Your task to perform on an android device: add a contact Image 0: 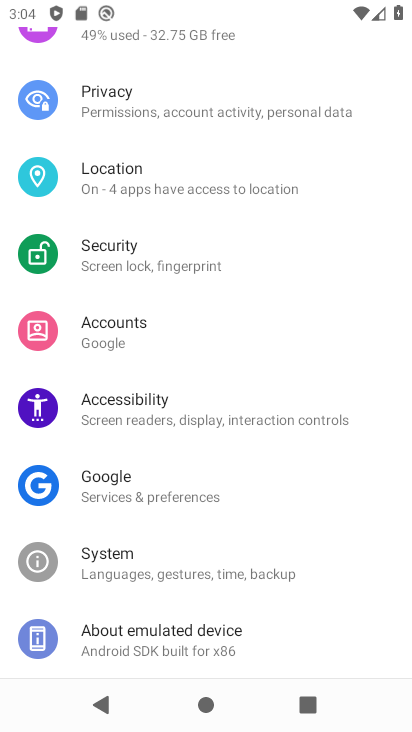
Step 0: drag from (209, 570) to (322, 150)
Your task to perform on an android device: add a contact Image 1: 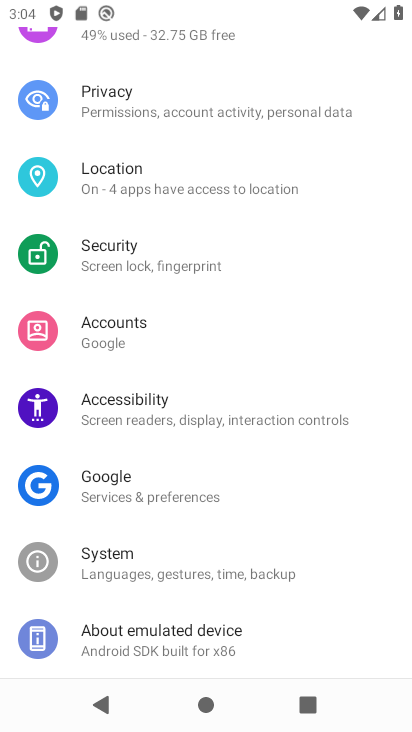
Step 1: press home button
Your task to perform on an android device: add a contact Image 2: 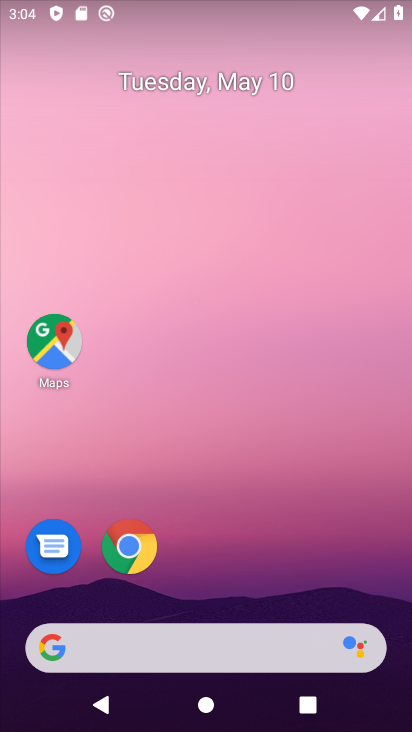
Step 2: drag from (248, 539) to (351, 7)
Your task to perform on an android device: add a contact Image 3: 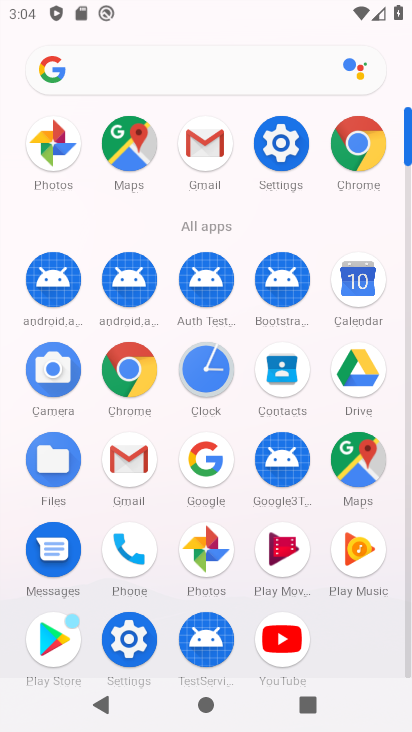
Step 3: click (281, 389)
Your task to perform on an android device: add a contact Image 4: 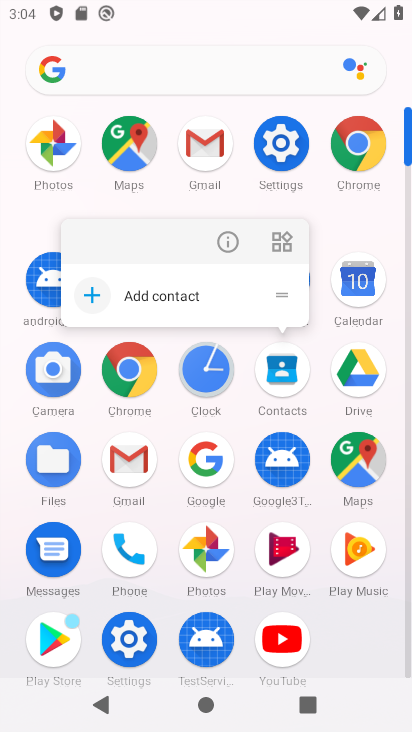
Step 4: click (281, 389)
Your task to perform on an android device: add a contact Image 5: 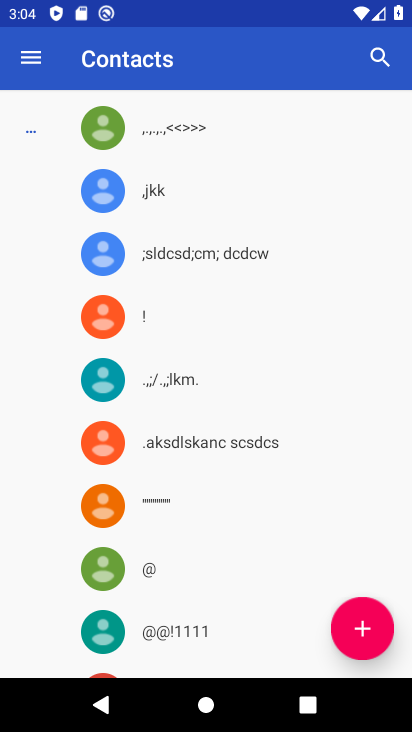
Step 5: click (372, 640)
Your task to perform on an android device: add a contact Image 6: 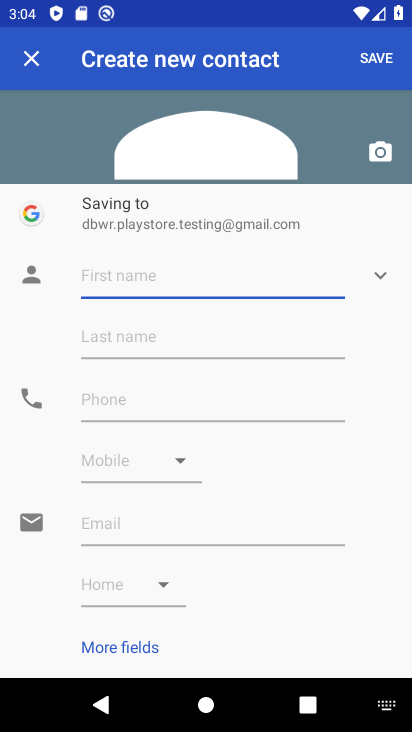
Step 6: type ""
Your task to perform on an android device: add a contact Image 7: 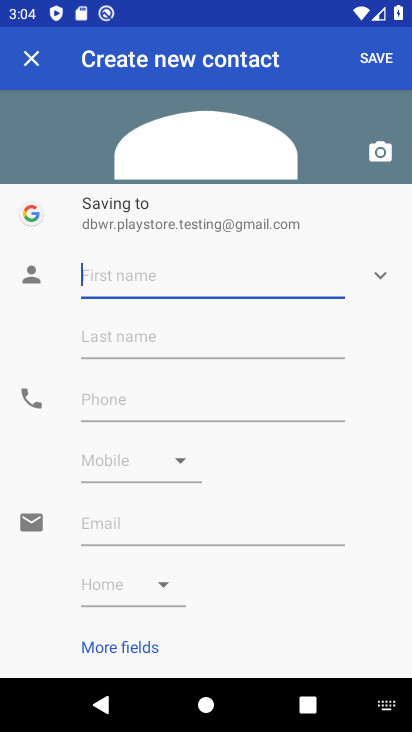
Step 7: type "frost"
Your task to perform on an android device: add a contact Image 8: 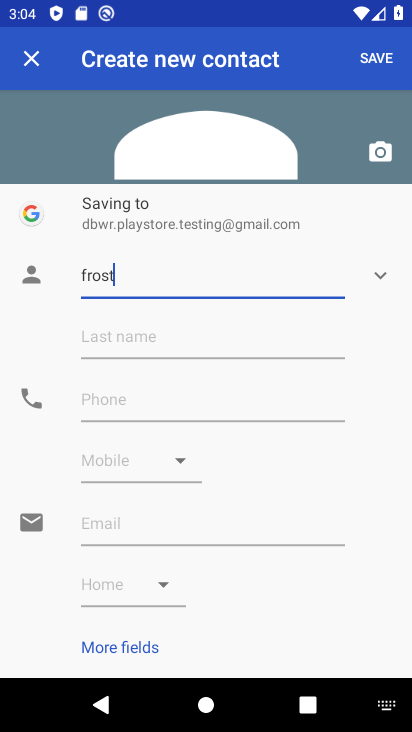
Step 8: click (379, 60)
Your task to perform on an android device: add a contact Image 9: 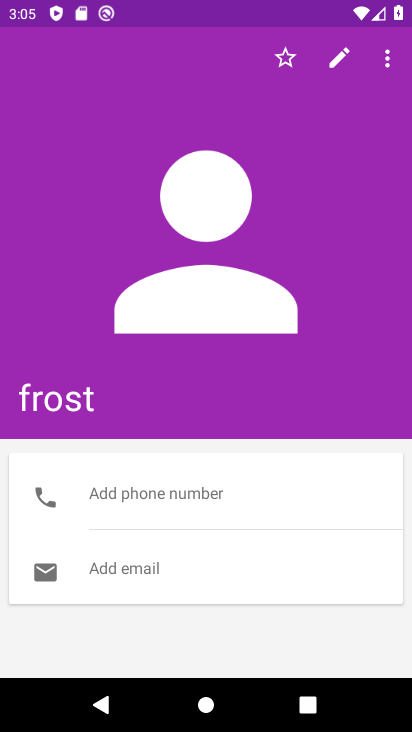
Step 9: task complete